Your task to perform on an android device: toggle javascript in the chrome app Image 0: 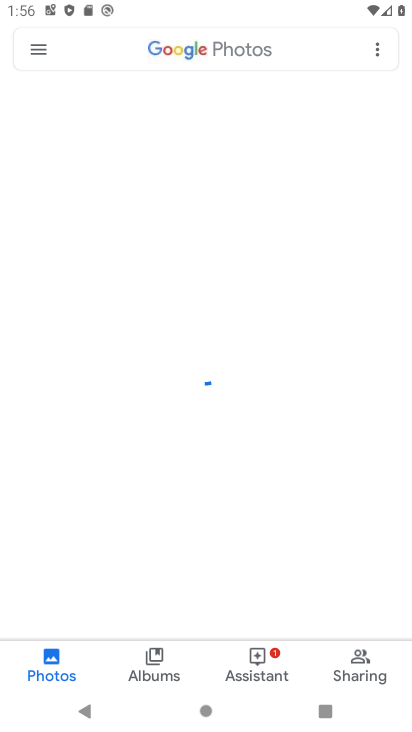
Step 0: press home button
Your task to perform on an android device: toggle javascript in the chrome app Image 1: 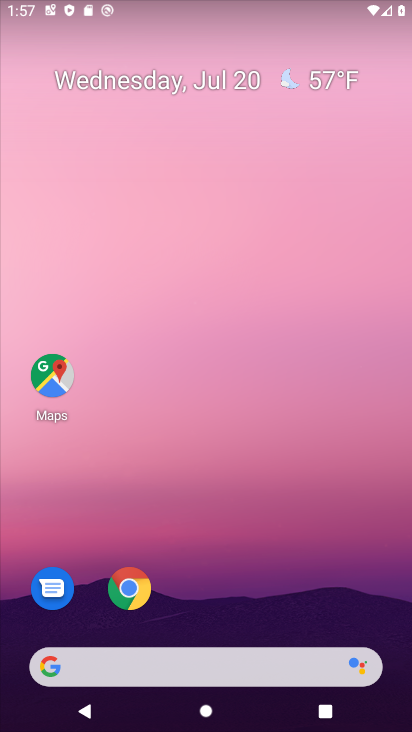
Step 1: drag from (377, 611) to (224, 69)
Your task to perform on an android device: toggle javascript in the chrome app Image 2: 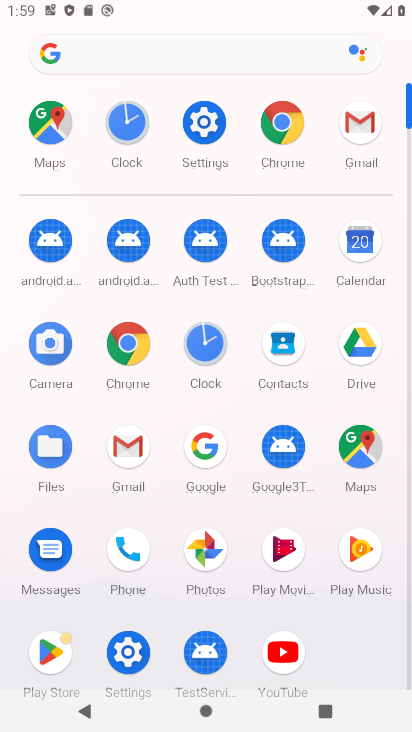
Step 2: click (126, 362)
Your task to perform on an android device: toggle javascript in the chrome app Image 3: 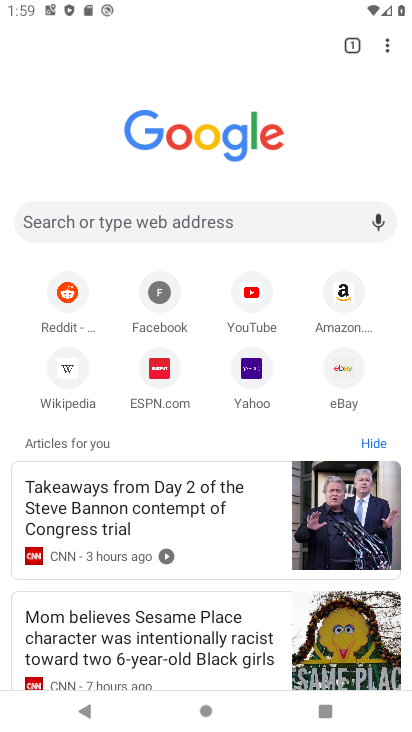
Step 3: click (384, 43)
Your task to perform on an android device: toggle javascript in the chrome app Image 4: 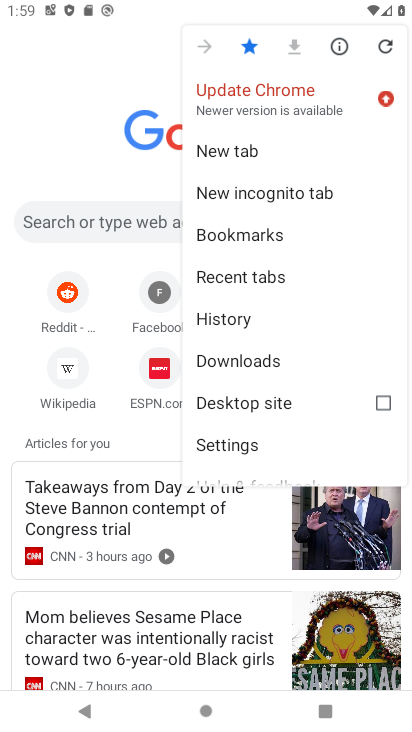
Step 4: click (223, 445)
Your task to perform on an android device: toggle javascript in the chrome app Image 5: 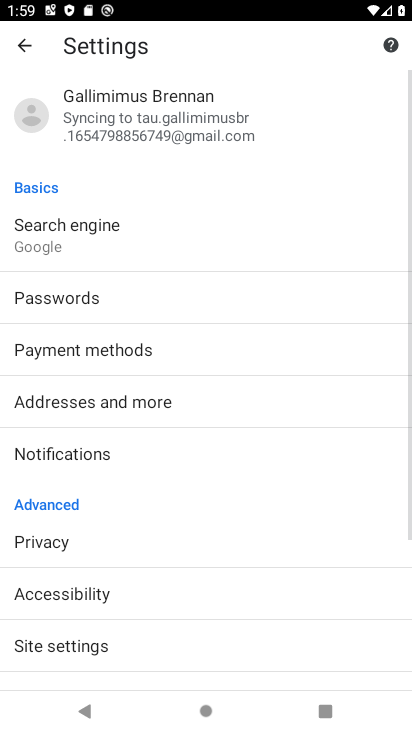
Step 5: click (68, 627)
Your task to perform on an android device: toggle javascript in the chrome app Image 6: 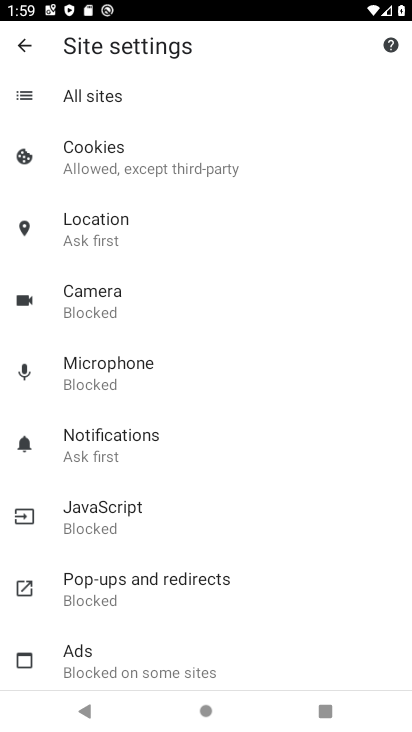
Step 6: click (112, 527)
Your task to perform on an android device: toggle javascript in the chrome app Image 7: 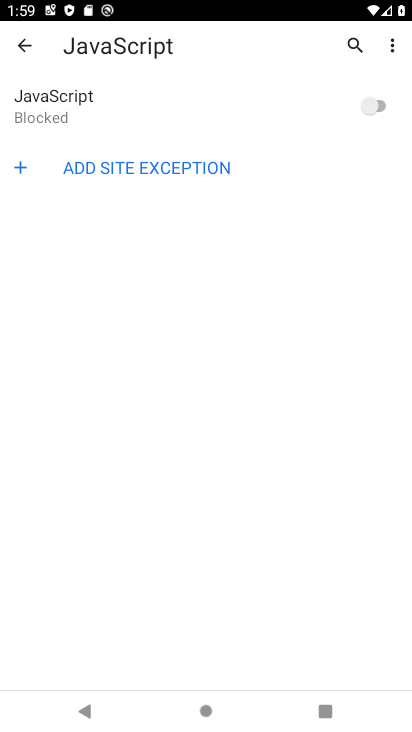
Step 7: click (381, 104)
Your task to perform on an android device: toggle javascript in the chrome app Image 8: 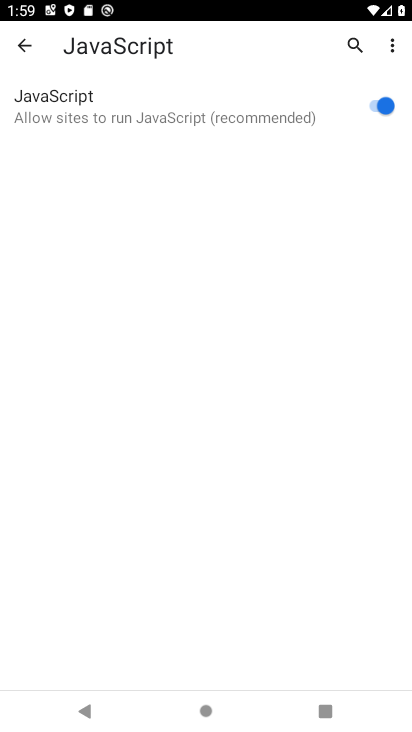
Step 8: task complete